Your task to perform on an android device: Open accessibility settings Image 0: 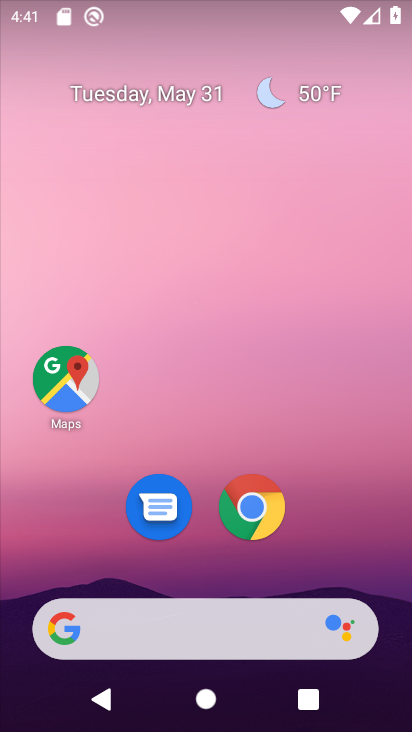
Step 0: drag from (316, 476) to (280, 63)
Your task to perform on an android device: Open accessibility settings Image 1: 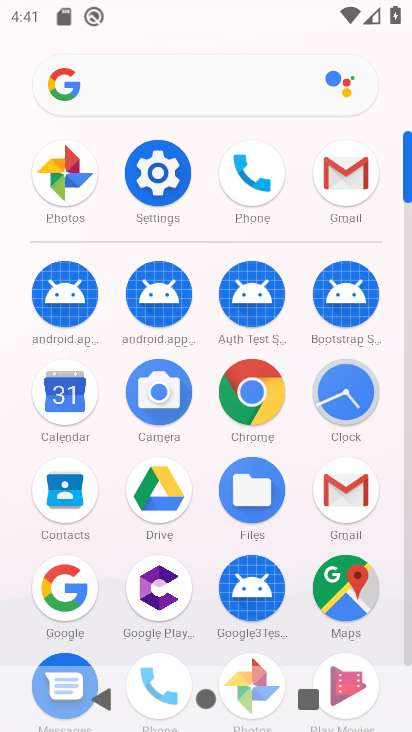
Step 1: click (168, 180)
Your task to perform on an android device: Open accessibility settings Image 2: 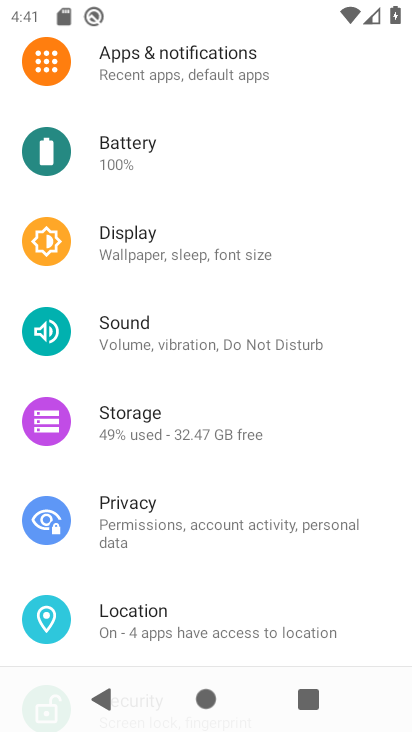
Step 2: drag from (242, 469) to (245, 82)
Your task to perform on an android device: Open accessibility settings Image 3: 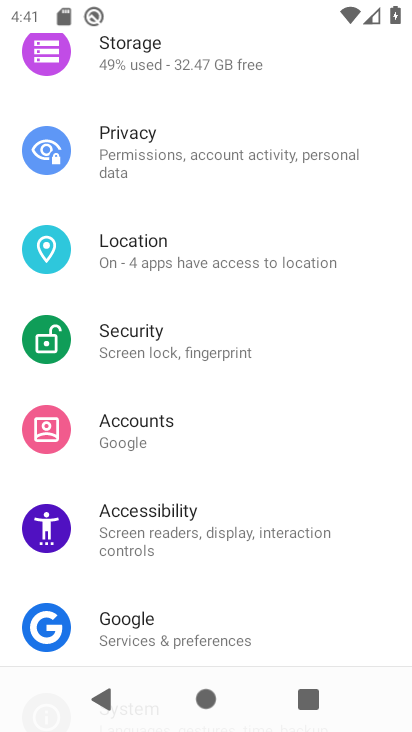
Step 3: click (185, 522)
Your task to perform on an android device: Open accessibility settings Image 4: 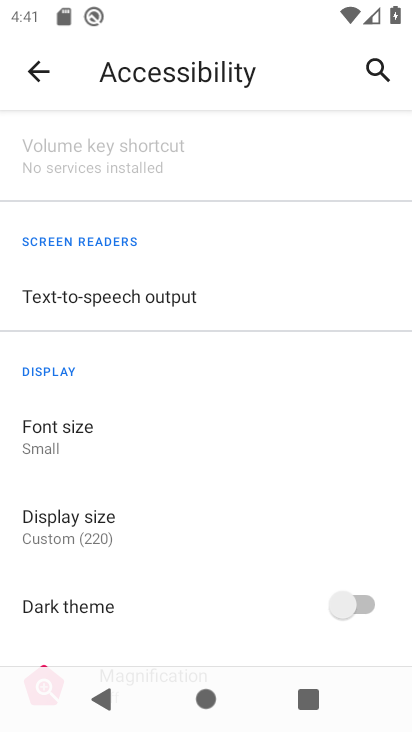
Step 4: task complete